Your task to perform on an android device: turn on showing notifications on the lock screen Image 0: 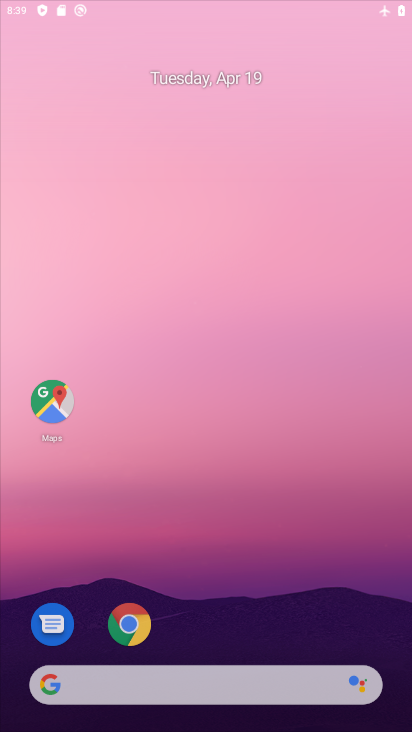
Step 0: click (234, 25)
Your task to perform on an android device: turn on showing notifications on the lock screen Image 1: 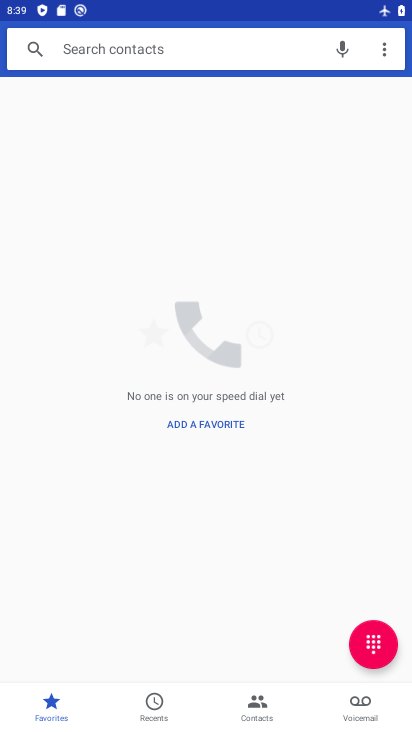
Step 1: press home button
Your task to perform on an android device: turn on showing notifications on the lock screen Image 2: 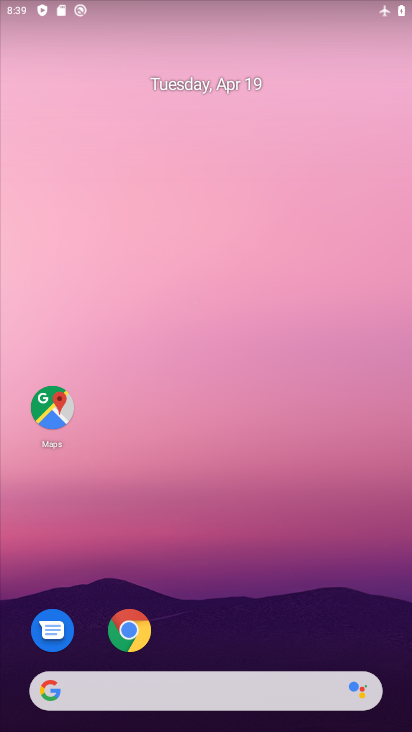
Step 2: drag from (222, 646) to (283, 47)
Your task to perform on an android device: turn on showing notifications on the lock screen Image 3: 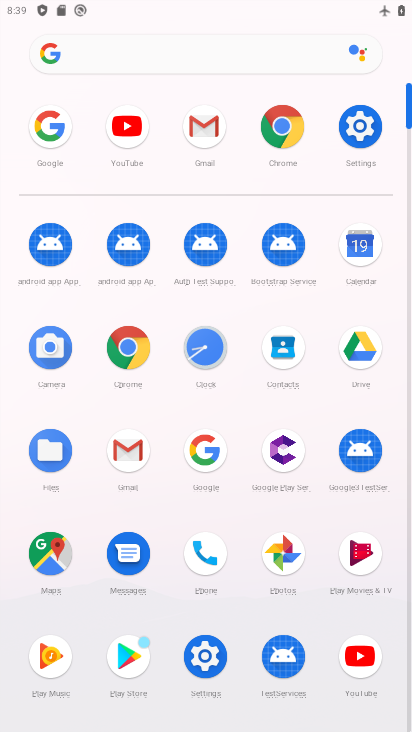
Step 3: click (360, 139)
Your task to perform on an android device: turn on showing notifications on the lock screen Image 4: 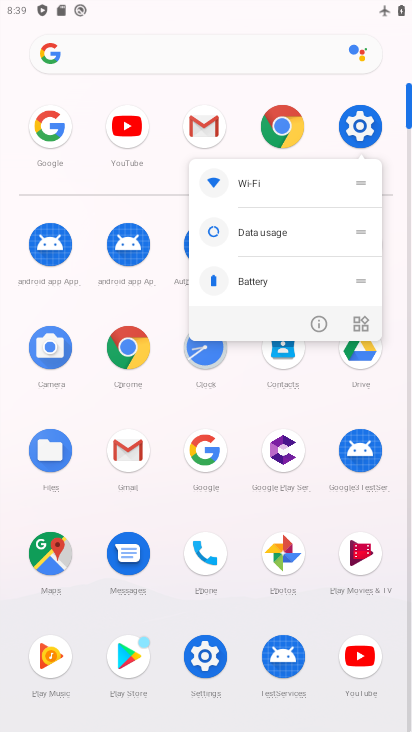
Step 4: click (360, 139)
Your task to perform on an android device: turn on showing notifications on the lock screen Image 5: 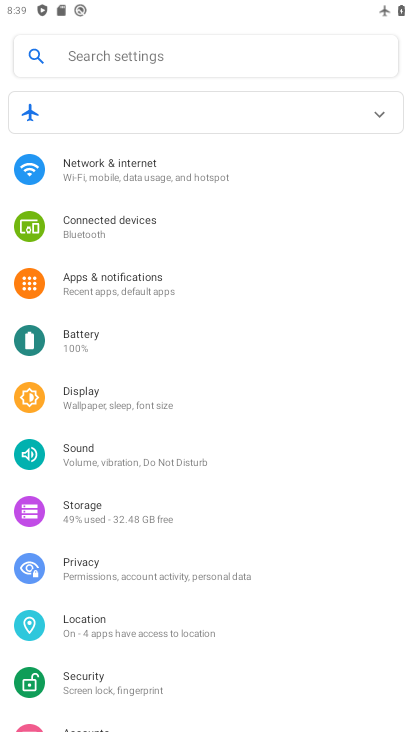
Step 5: click (169, 291)
Your task to perform on an android device: turn on showing notifications on the lock screen Image 6: 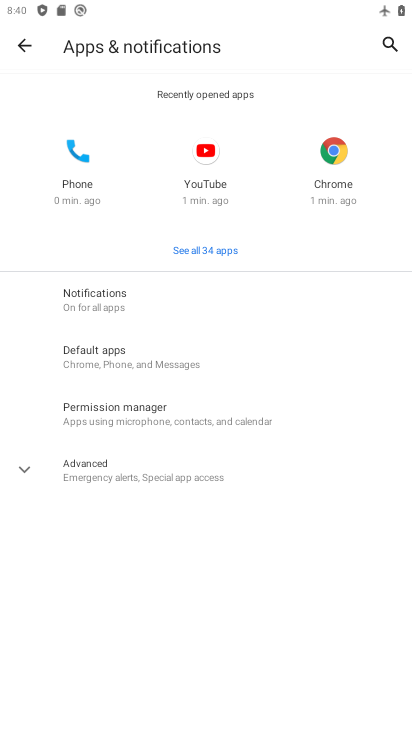
Step 6: click (185, 296)
Your task to perform on an android device: turn on showing notifications on the lock screen Image 7: 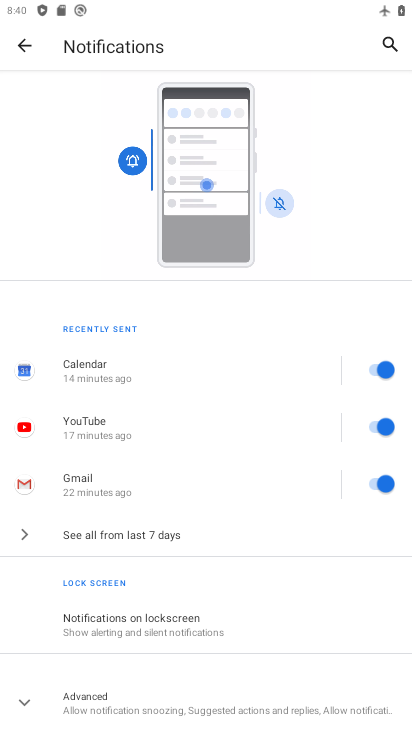
Step 7: click (196, 618)
Your task to perform on an android device: turn on showing notifications on the lock screen Image 8: 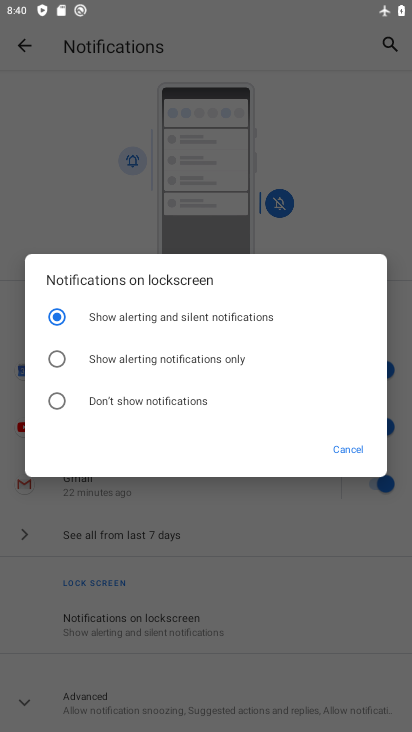
Step 8: click (58, 400)
Your task to perform on an android device: turn on showing notifications on the lock screen Image 9: 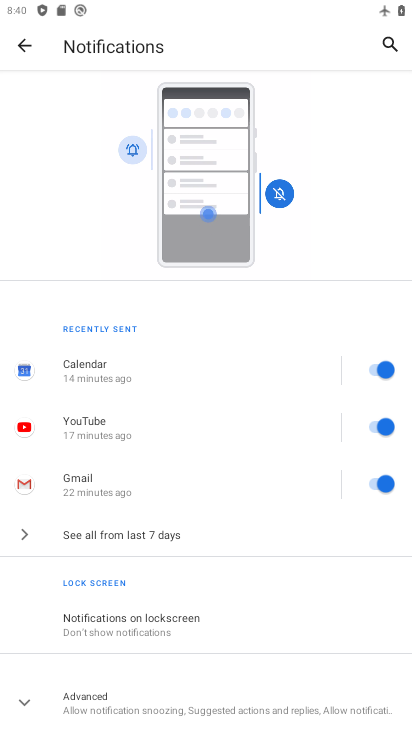
Step 9: task complete